Your task to perform on an android device: all mails in gmail Image 0: 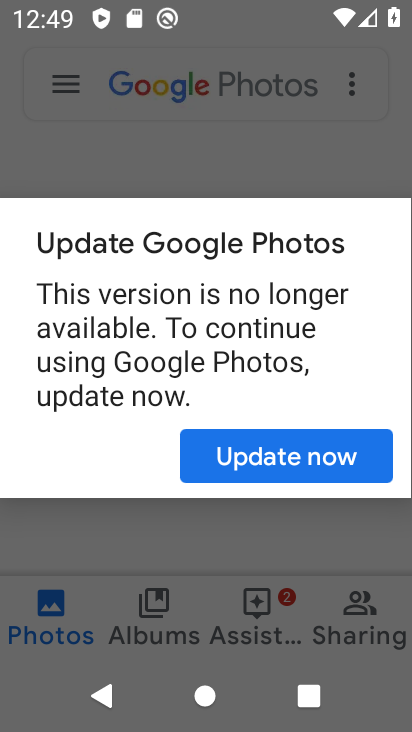
Step 0: press home button
Your task to perform on an android device: all mails in gmail Image 1: 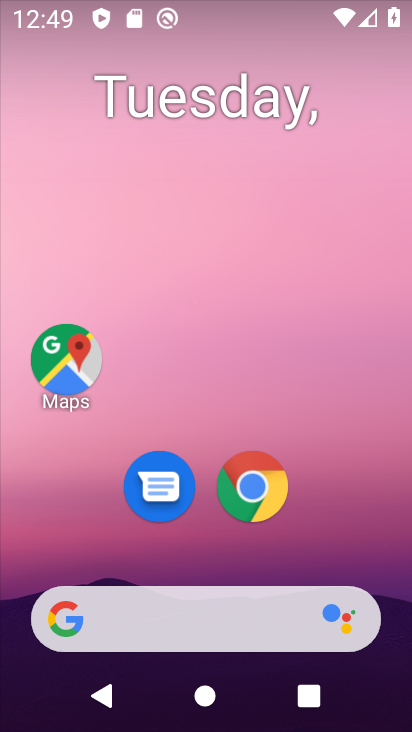
Step 1: drag from (334, 534) to (244, 45)
Your task to perform on an android device: all mails in gmail Image 2: 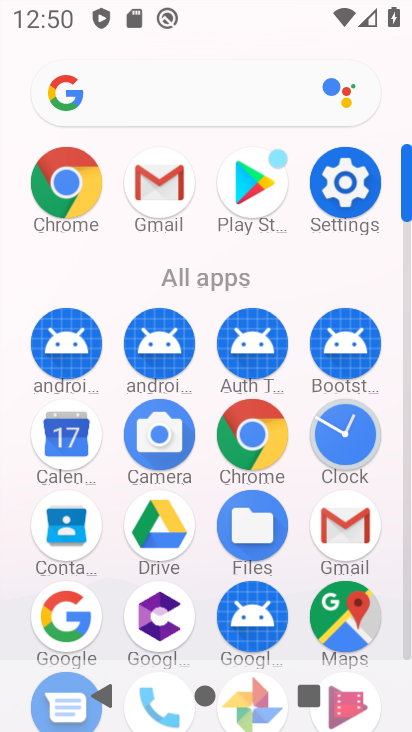
Step 2: click (167, 194)
Your task to perform on an android device: all mails in gmail Image 3: 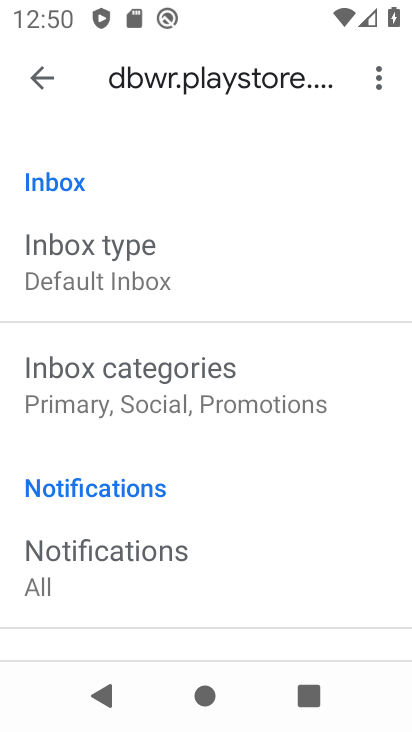
Step 3: click (40, 76)
Your task to perform on an android device: all mails in gmail Image 4: 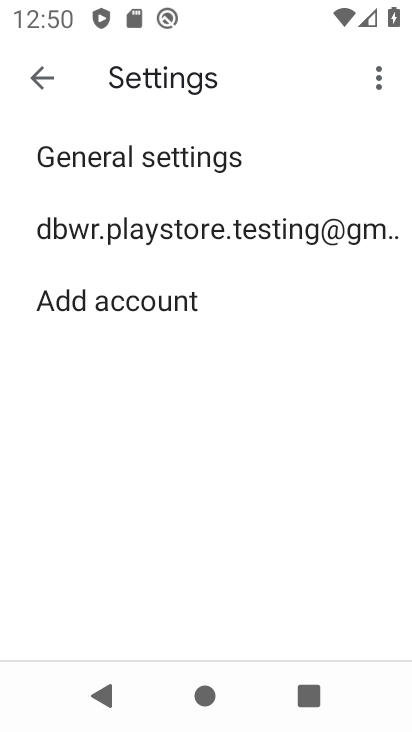
Step 4: click (40, 76)
Your task to perform on an android device: all mails in gmail Image 5: 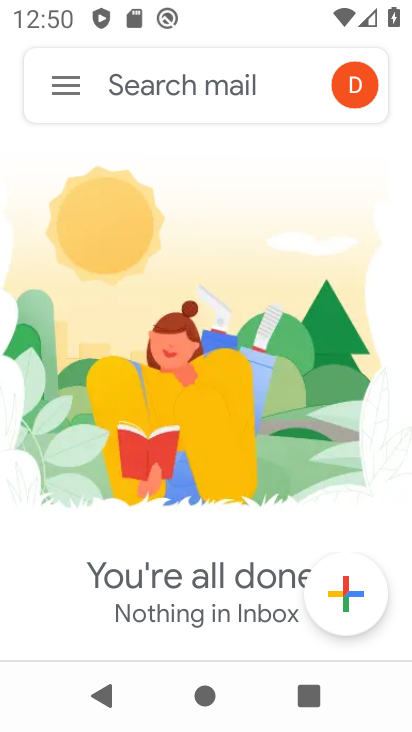
Step 5: click (50, 79)
Your task to perform on an android device: all mails in gmail Image 6: 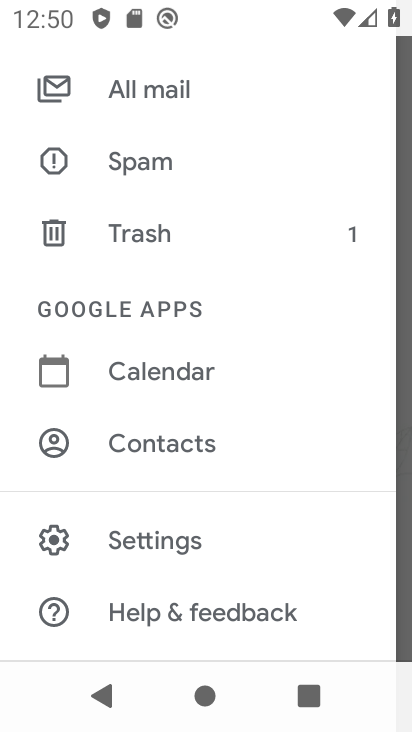
Step 6: click (165, 96)
Your task to perform on an android device: all mails in gmail Image 7: 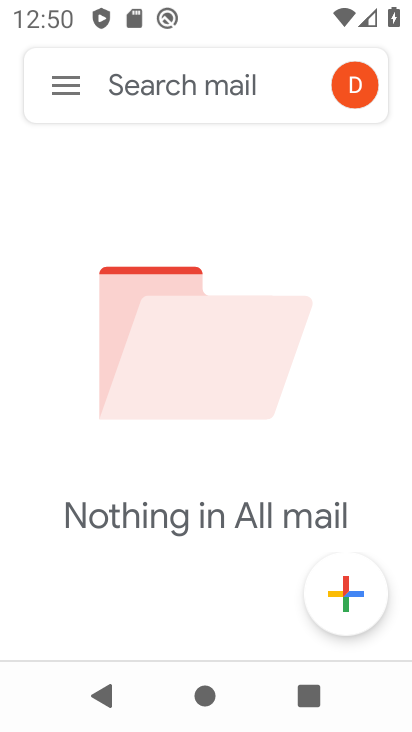
Step 7: task complete